Your task to perform on an android device: find which apps use the phone's location Image 0: 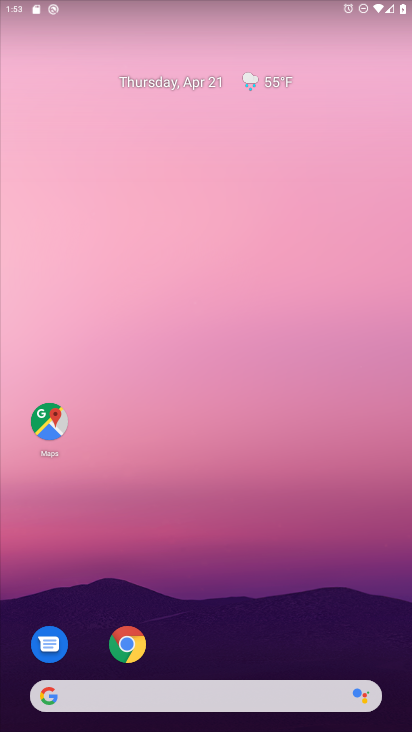
Step 0: drag from (221, 639) to (373, 85)
Your task to perform on an android device: find which apps use the phone's location Image 1: 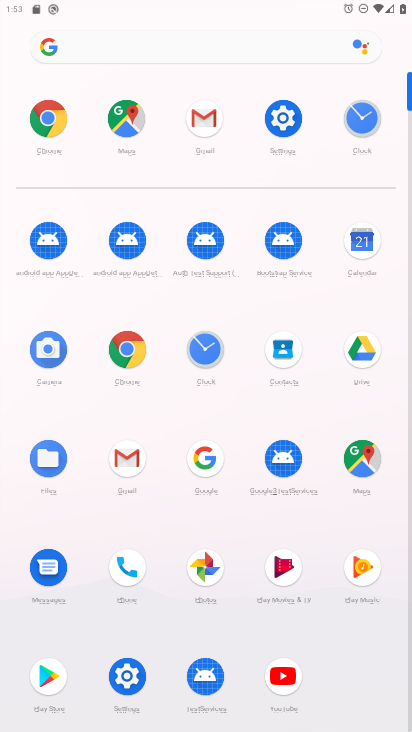
Step 1: click (282, 126)
Your task to perform on an android device: find which apps use the phone's location Image 2: 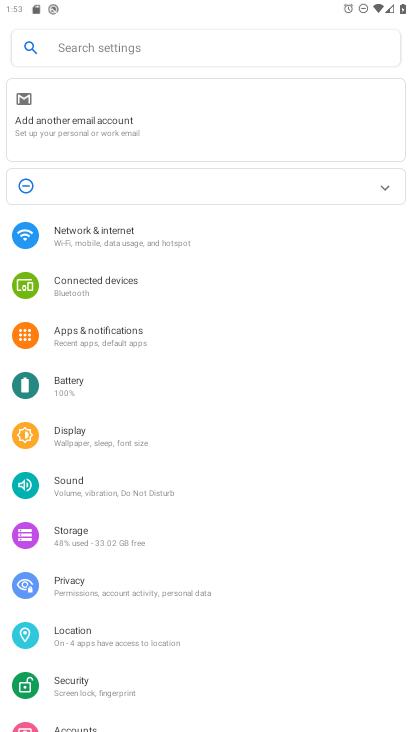
Step 2: click (245, 647)
Your task to perform on an android device: find which apps use the phone's location Image 3: 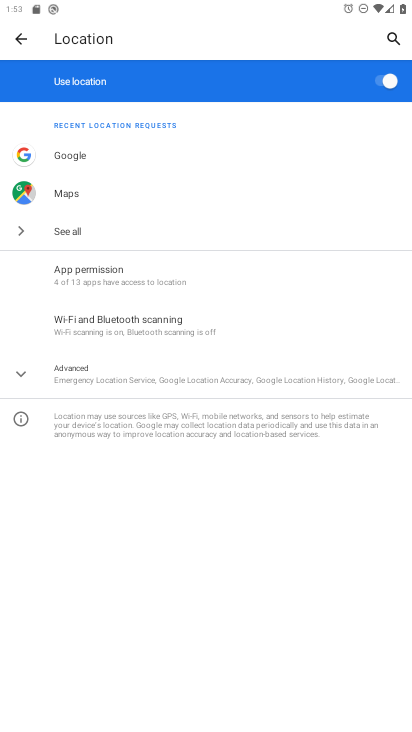
Step 3: click (165, 280)
Your task to perform on an android device: find which apps use the phone's location Image 4: 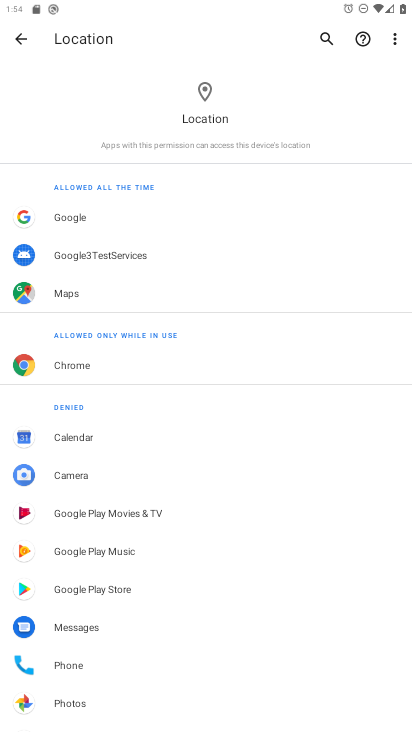
Step 4: task complete